Your task to perform on an android device: turn on sleep mode Image 0: 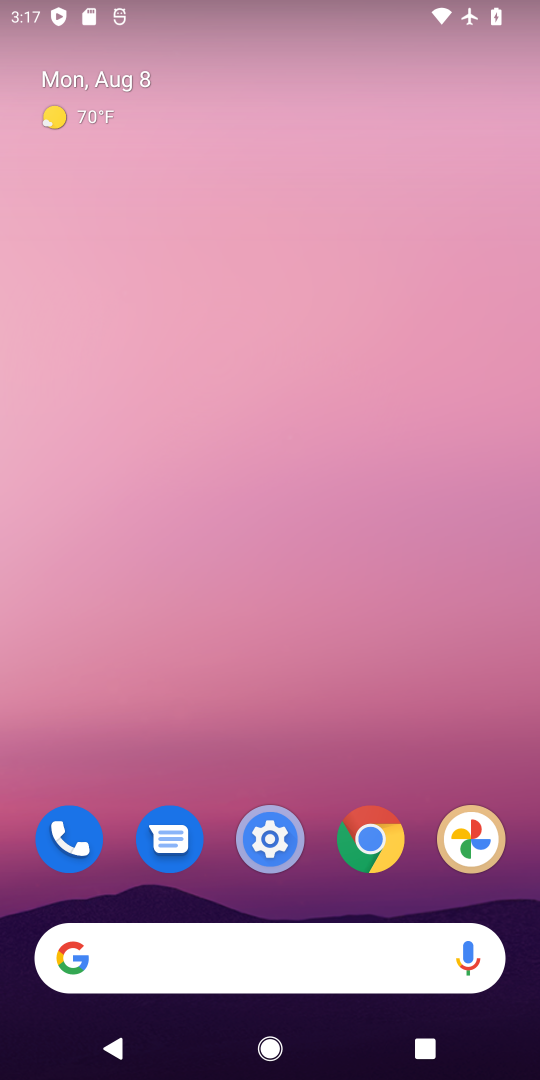
Step 0: press home button
Your task to perform on an android device: turn on sleep mode Image 1: 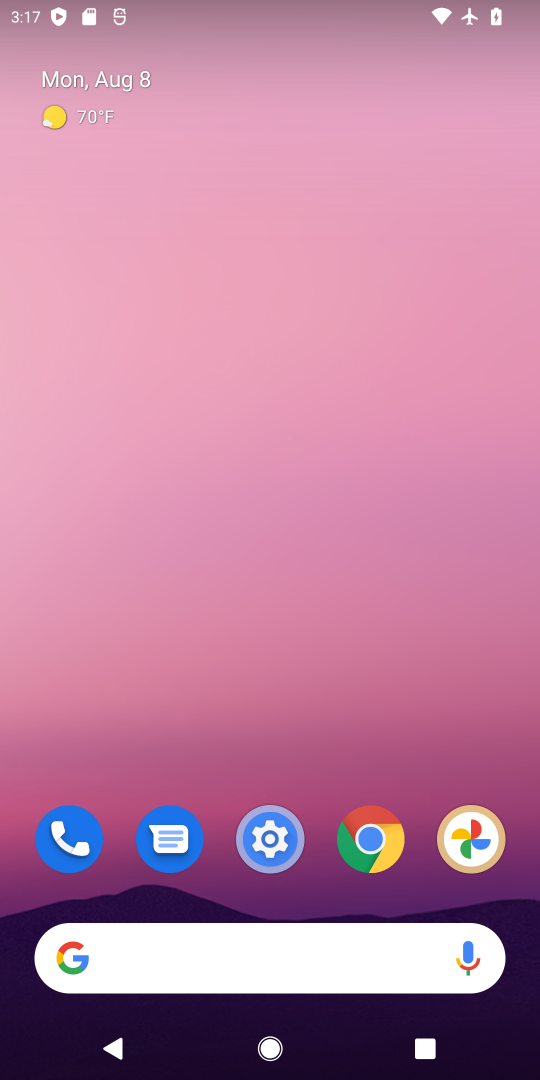
Step 1: drag from (418, 787) to (399, 155)
Your task to perform on an android device: turn on sleep mode Image 2: 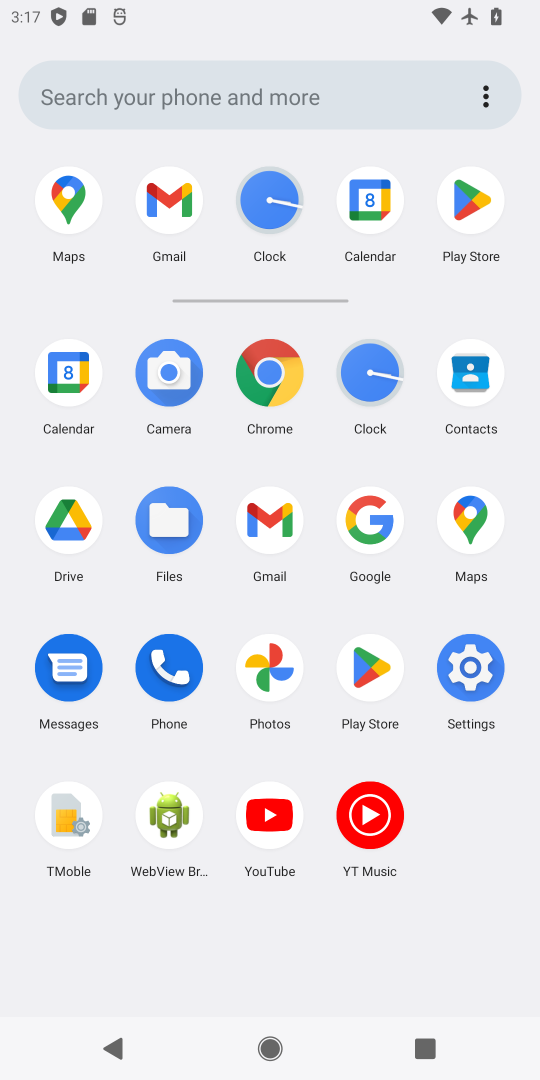
Step 2: click (475, 672)
Your task to perform on an android device: turn on sleep mode Image 3: 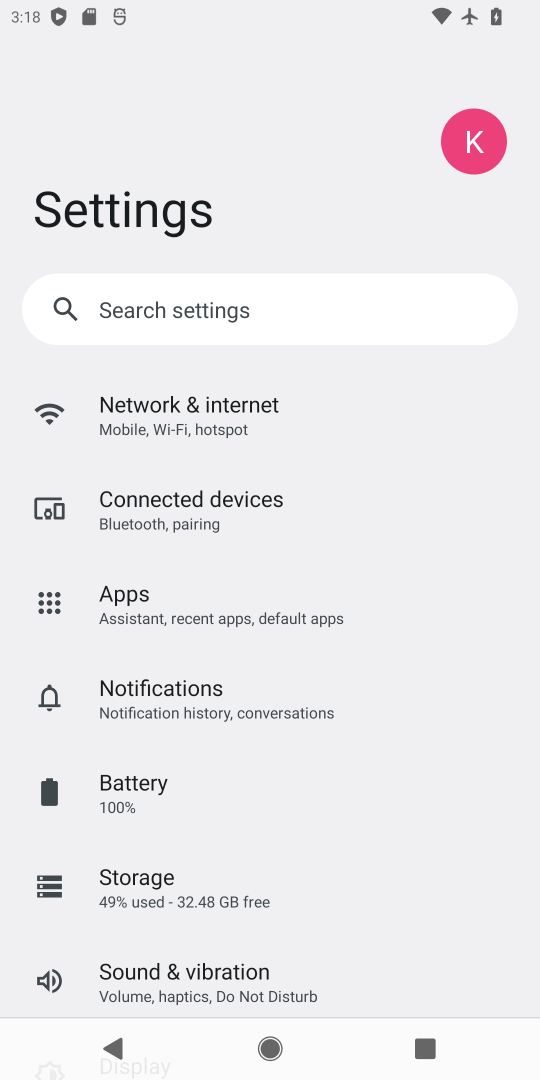
Step 3: drag from (440, 769) to (447, 545)
Your task to perform on an android device: turn on sleep mode Image 4: 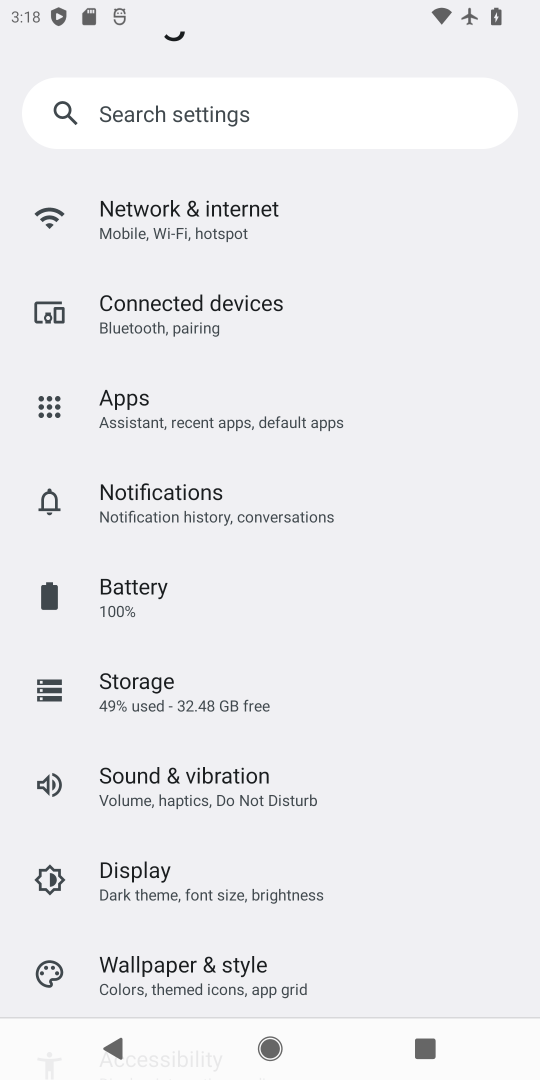
Step 4: drag from (433, 738) to (435, 552)
Your task to perform on an android device: turn on sleep mode Image 5: 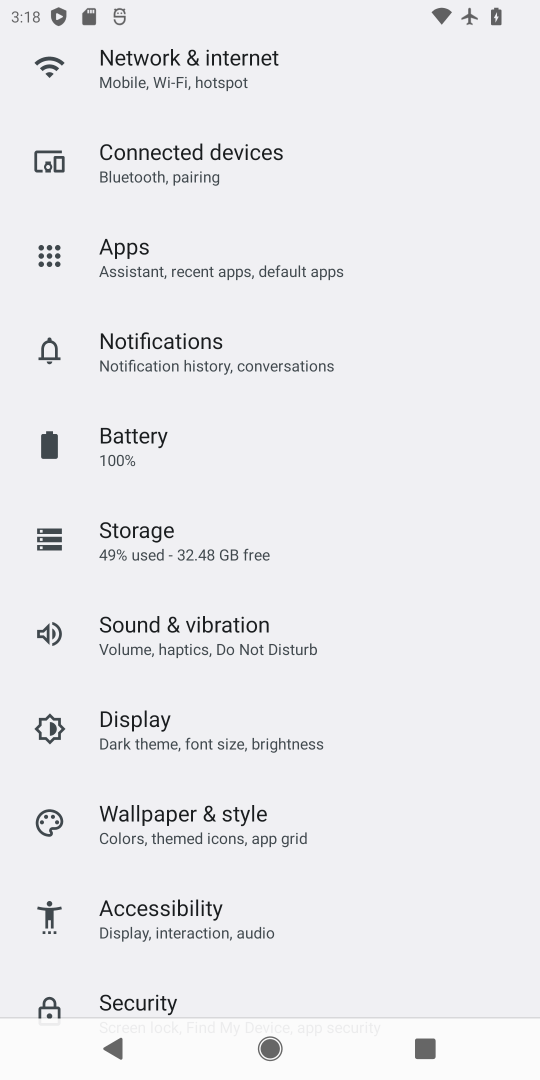
Step 5: drag from (434, 781) to (448, 509)
Your task to perform on an android device: turn on sleep mode Image 6: 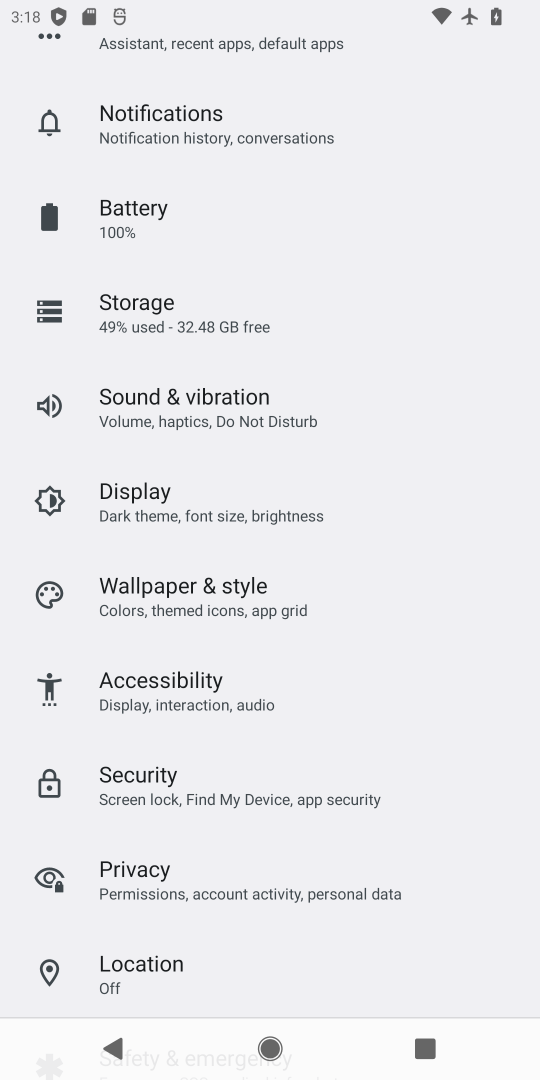
Step 6: drag from (431, 748) to (433, 565)
Your task to perform on an android device: turn on sleep mode Image 7: 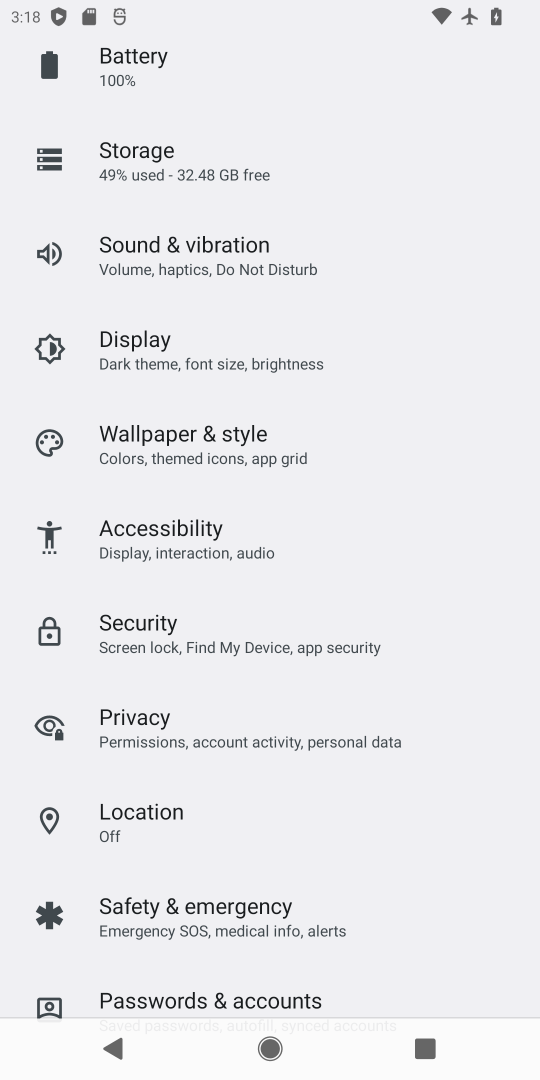
Step 7: drag from (423, 825) to (434, 591)
Your task to perform on an android device: turn on sleep mode Image 8: 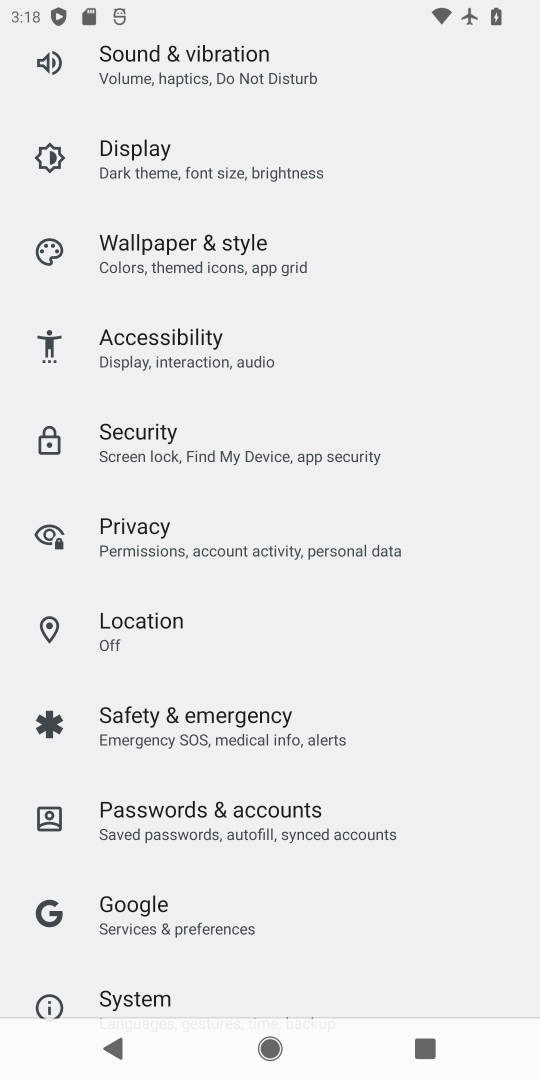
Step 8: drag from (479, 332) to (476, 550)
Your task to perform on an android device: turn on sleep mode Image 9: 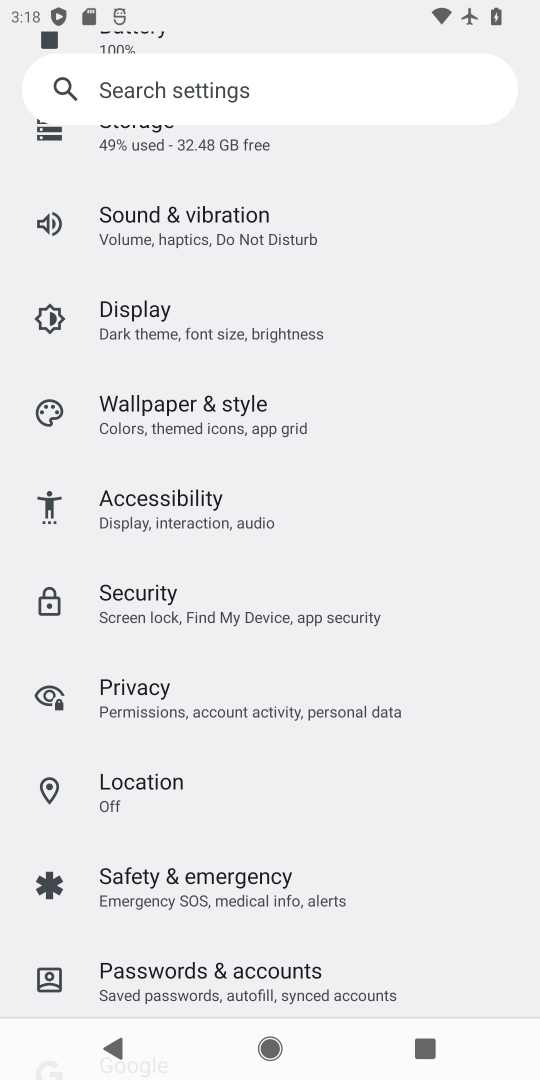
Step 9: drag from (452, 419) to (444, 519)
Your task to perform on an android device: turn on sleep mode Image 10: 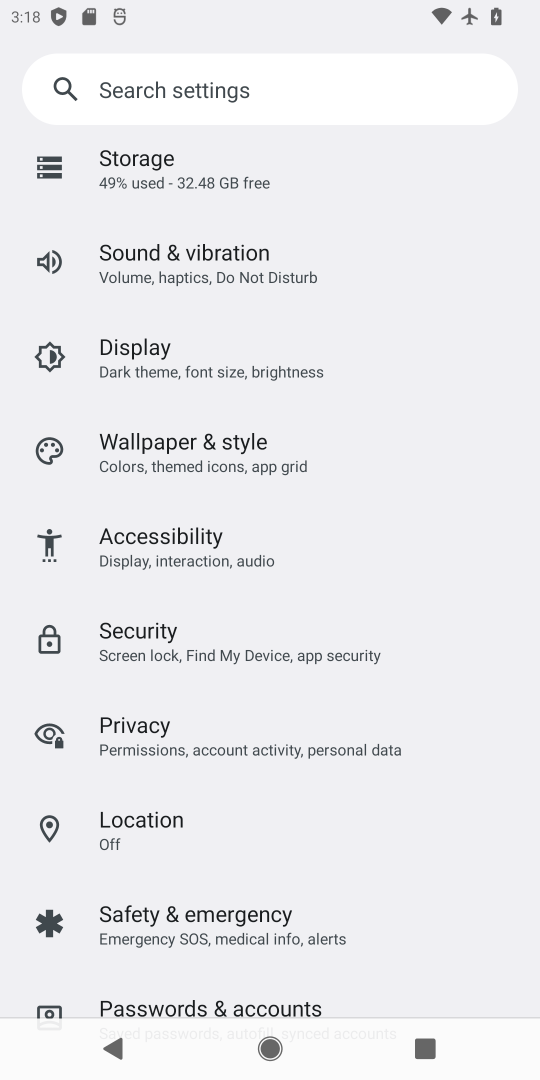
Step 10: drag from (444, 295) to (442, 536)
Your task to perform on an android device: turn on sleep mode Image 11: 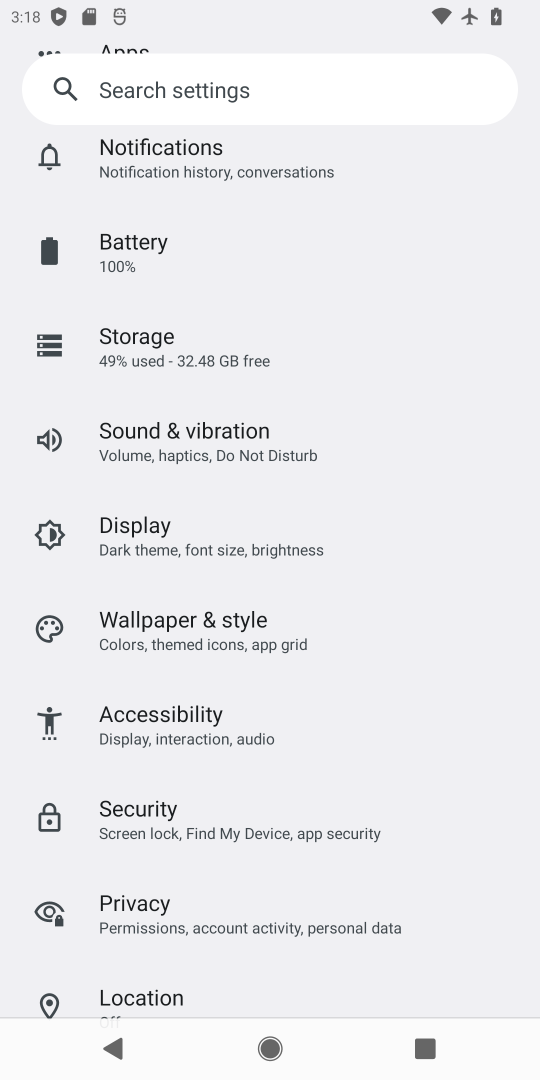
Step 11: drag from (421, 318) to (429, 606)
Your task to perform on an android device: turn on sleep mode Image 12: 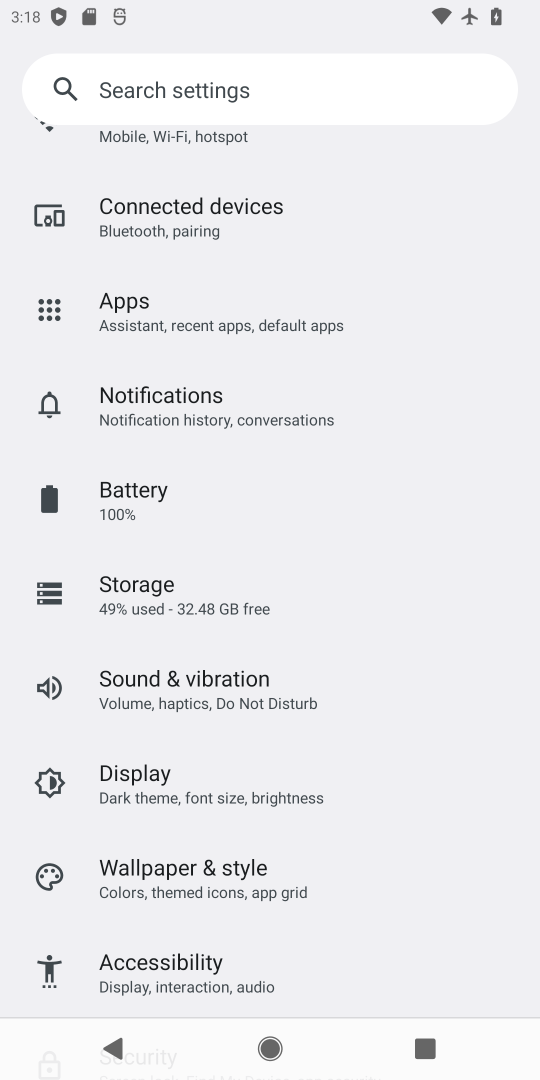
Step 12: drag from (443, 326) to (443, 545)
Your task to perform on an android device: turn on sleep mode Image 13: 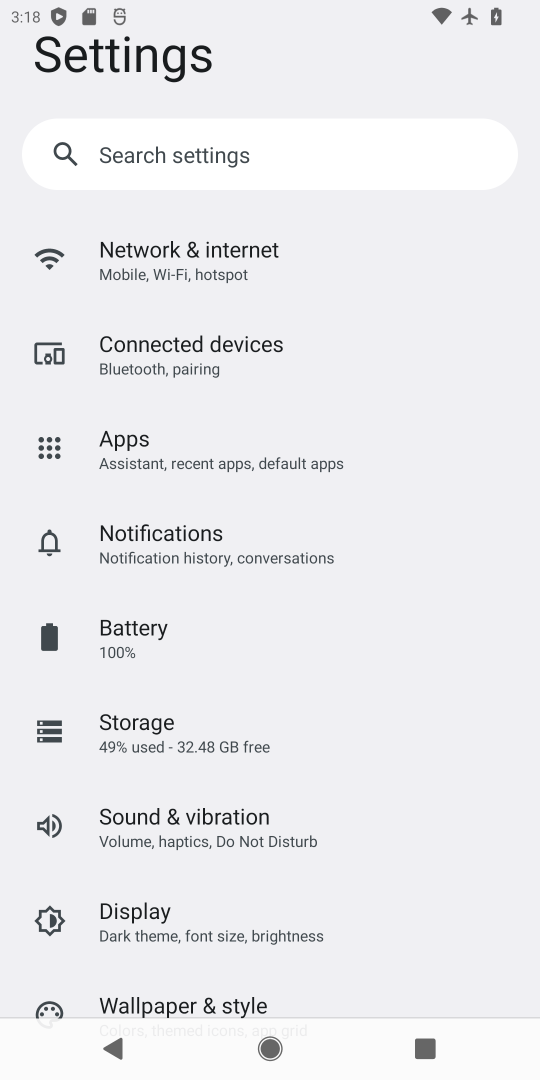
Step 13: drag from (438, 318) to (439, 546)
Your task to perform on an android device: turn on sleep mode Image 14: 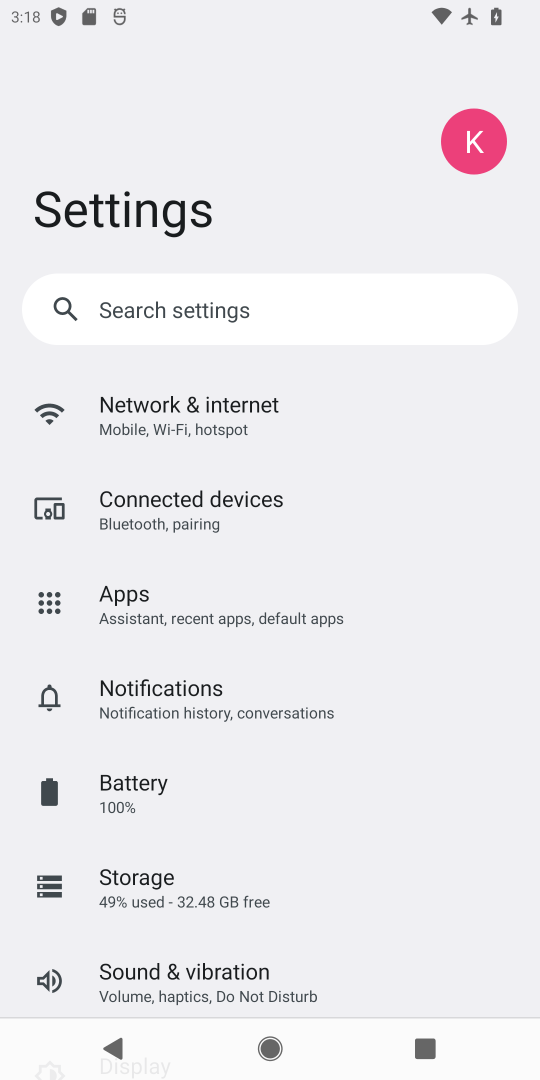
Step 14: drag from (423, 735) to (450, 490)
Your task to perform on an android device: turn on sleep mode Image 15: 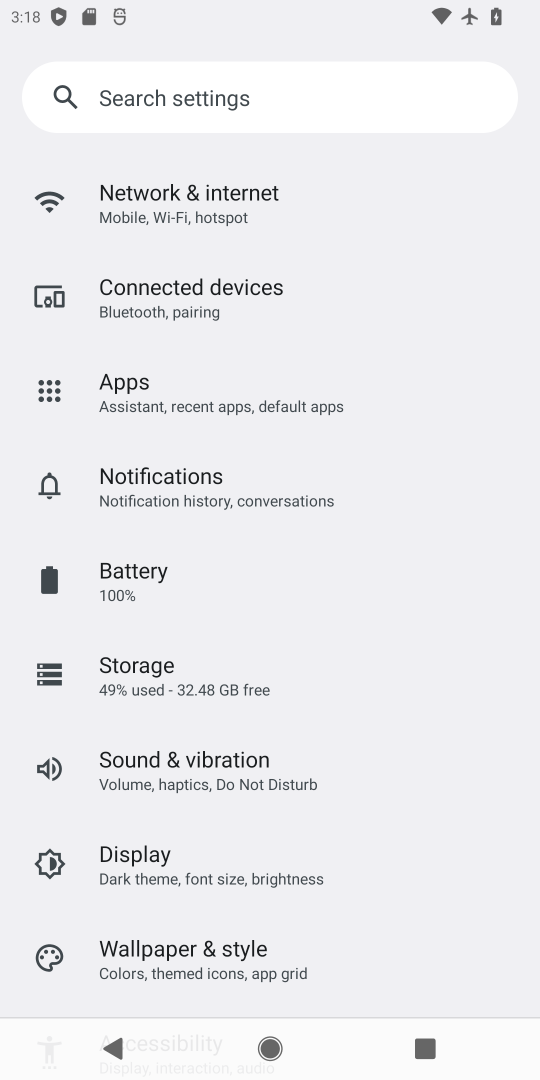
Step 15: click (370, 876)
Your task to perform on an android device: turn on sleep mode Image 16: 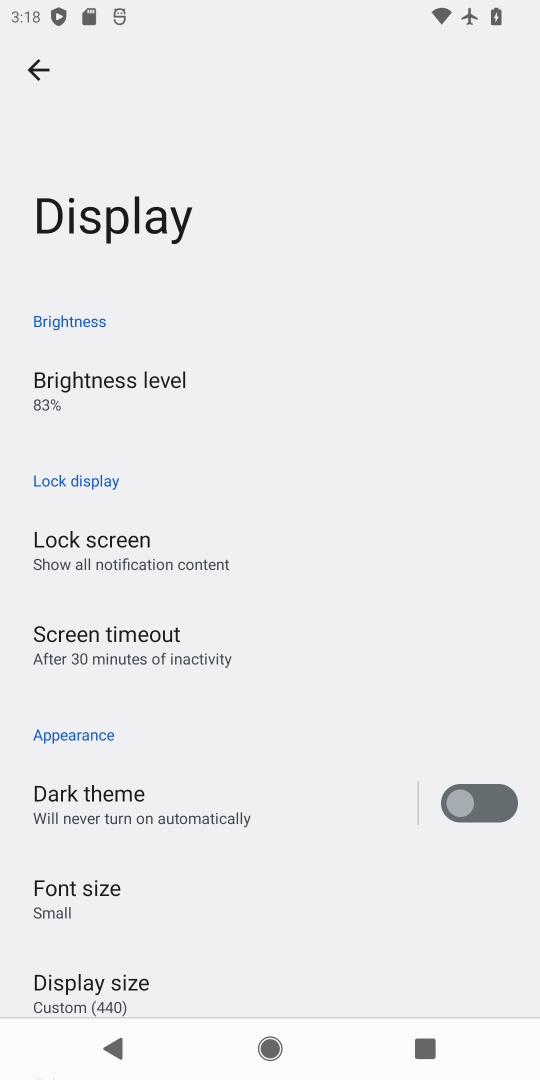
Step 16: task complete